Your task to perform on an android device: turn on bluetooth scan Image 0: 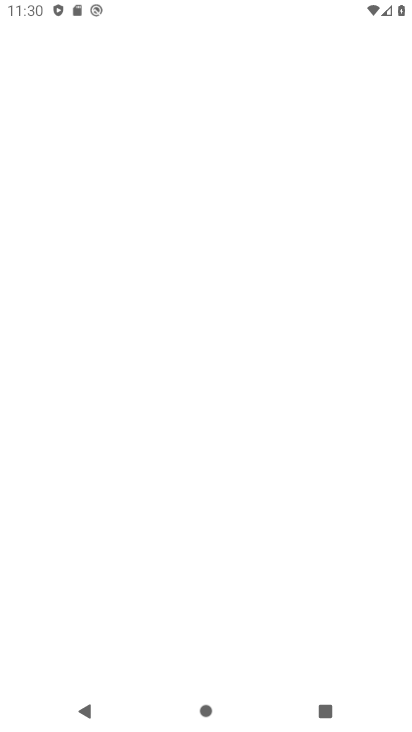
Step 0: drag from (194, 629) to (134, 87)
Your task to perform on an android device: turn on bluetooth scan Image 1: 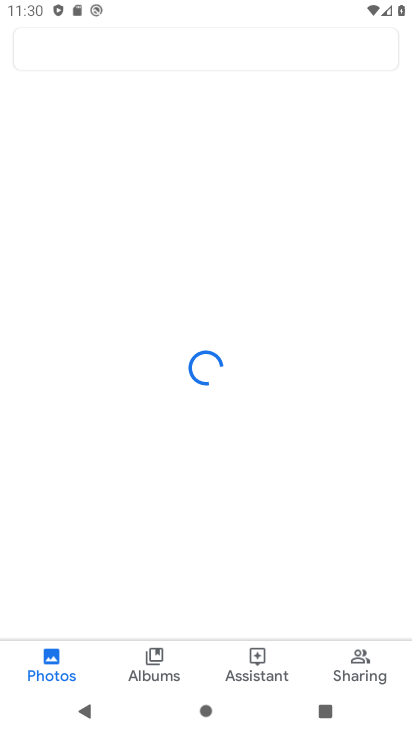
Step 1: press home button
Your task to perform on an android device: turn on bluetooth scan Image 2: 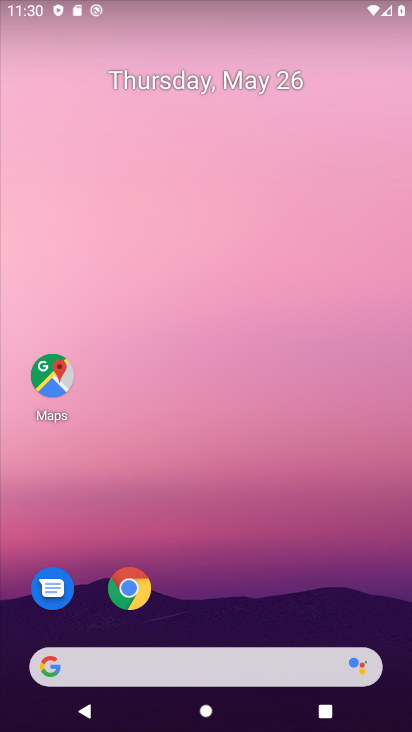
Step 2: drag from (216, 632) to (149, 85)
Your task to perform on an android device: turn on bluetooth scan Image 3: 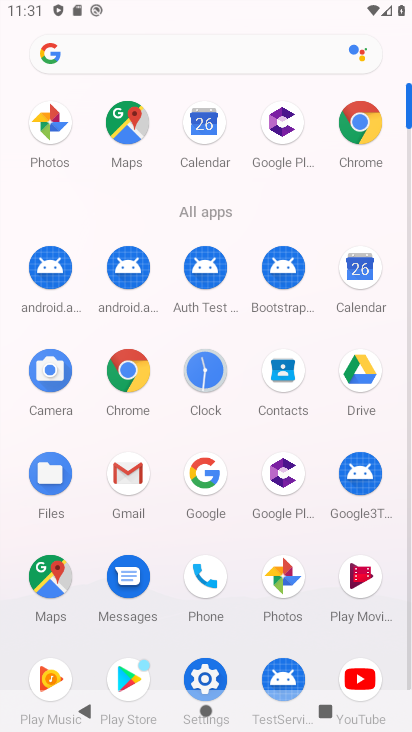
Step 3: click (202, 666)
Your task to perform on an android device: turn on bluetooth scan Image 4: 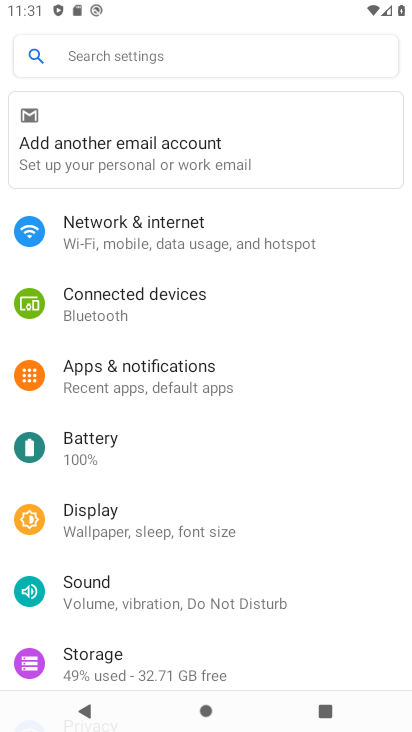
Step 4: drag from (248, 576) to (203, 237)
Your task to perform on an android device: turn on bluetooth scan Image 5: 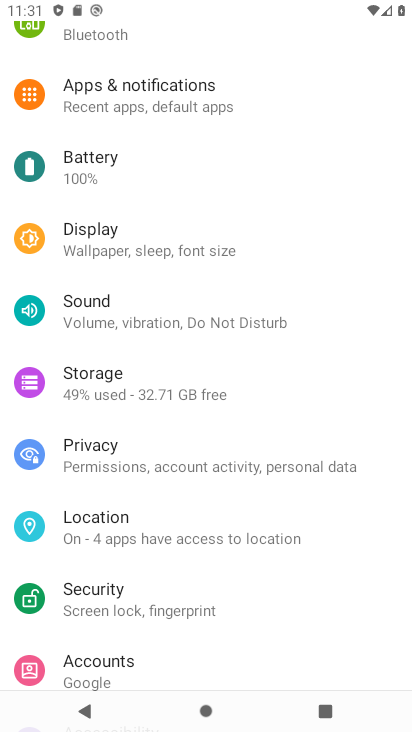
Step 5: click (105, 528)
Your task to perform on an android device: turn on bluetooth scan Image 6: 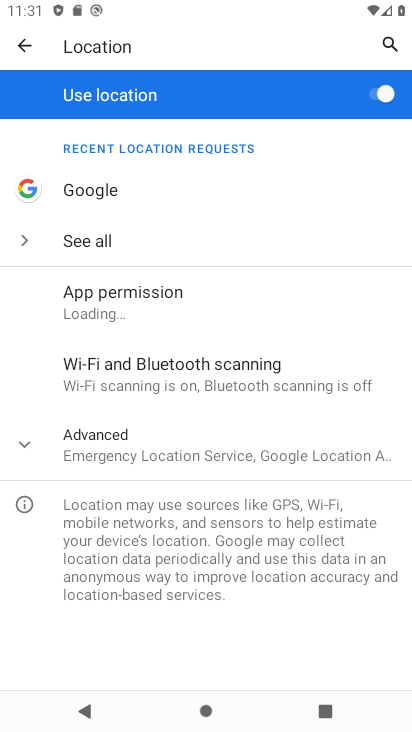
Step 6: click (109, 387)
Your task to perform on an android device: turn on bluetooth scan Image 7: 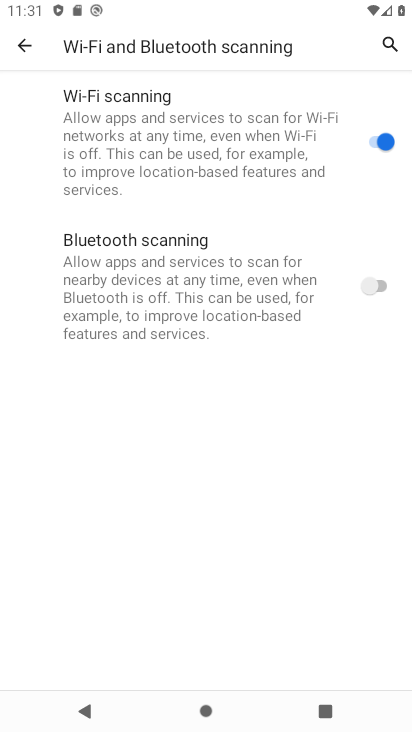
Step 7: click (362, 277)
Your task to perform on an android device: turn on bluetooth scan Image 8: 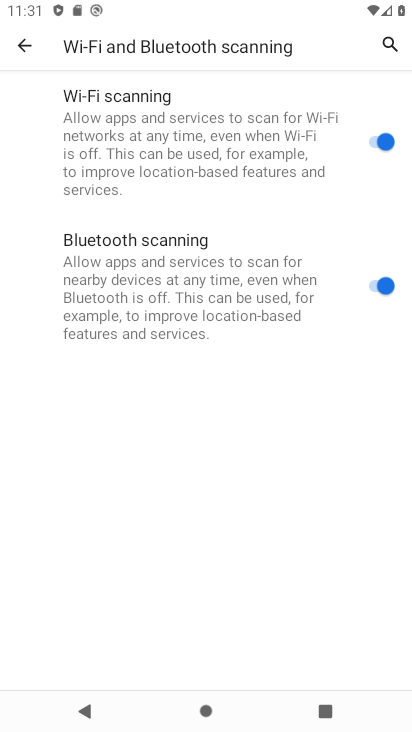
Step 8: task complete